Your task to perform on an android device: Go to Yahoo.com Image 0: 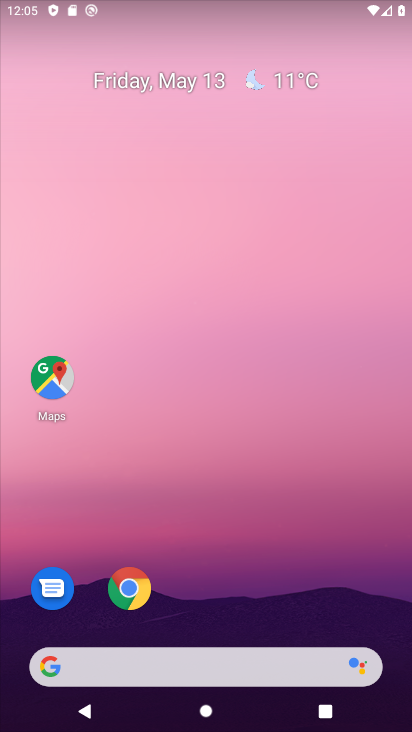
Step 0: click (114, 586)
Your task to perform on an android device: Go to Yahoo.com Image 1: 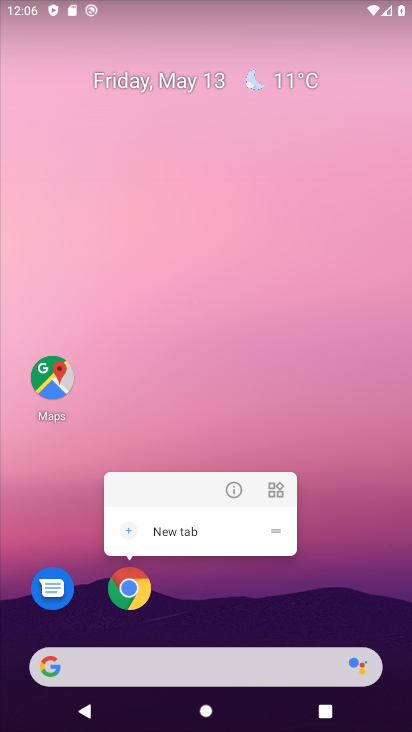
Step 1: click (134, 597)
Your task to perform on an android device: Go to Yahoo.com Image 2: 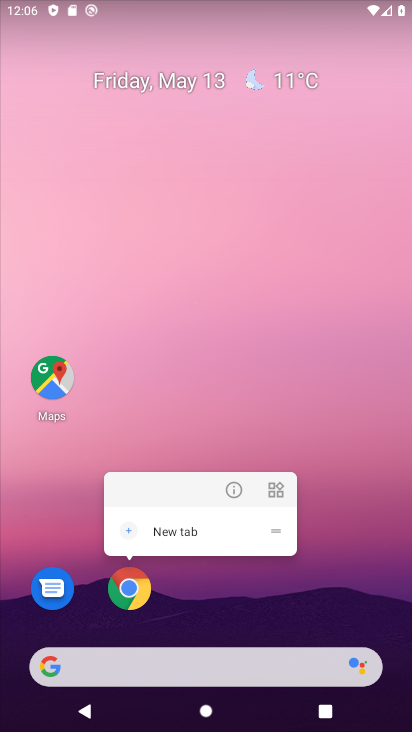
Step 2: click (121, 594)
Your task to perform on an android device: Go to Yahoo.com Image 3: 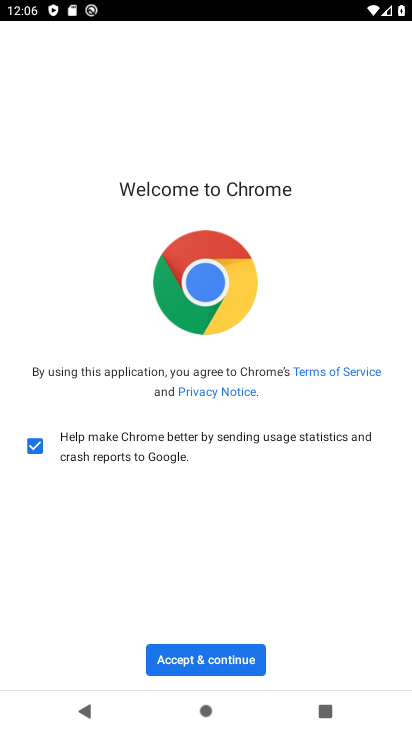
Step 3: click (267, 668)
Your task to perform on an android device: Go to Yahoo.com Image 4: 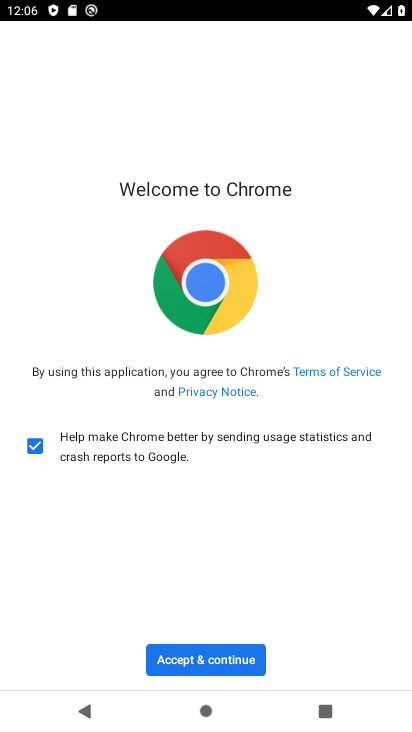
Step 4: click (238, 660)
Your task to perform on an android device: Go to Yahoo.com Image 5: 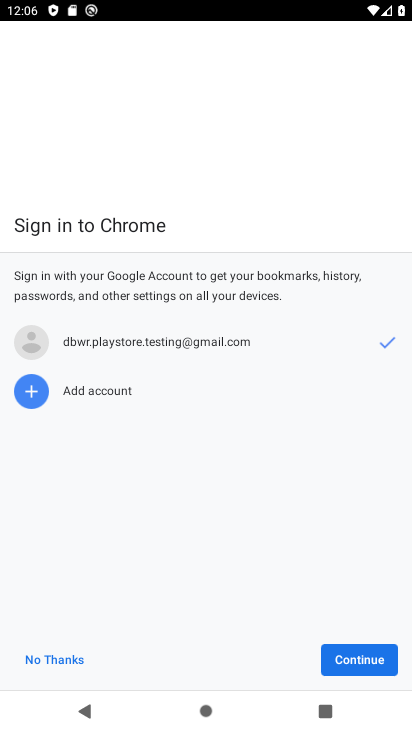
Step 5: click (370, 675)
Your task to perform on an android device: Go to Yahoo.com Image 6: 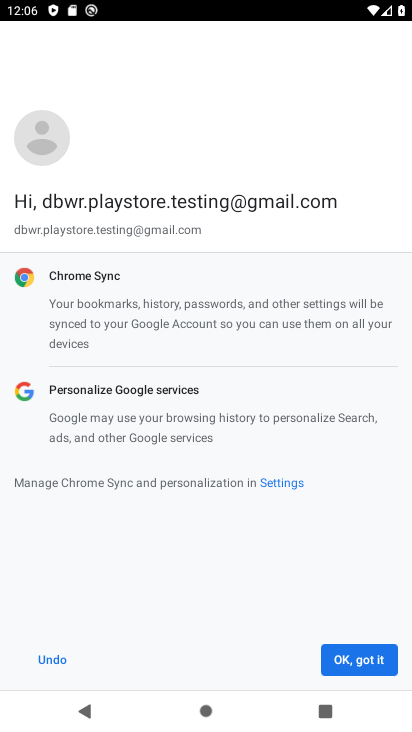
Step 6: click (368, 664)
Your task to perform on an android device: Go to Yahoo.com Image 7: 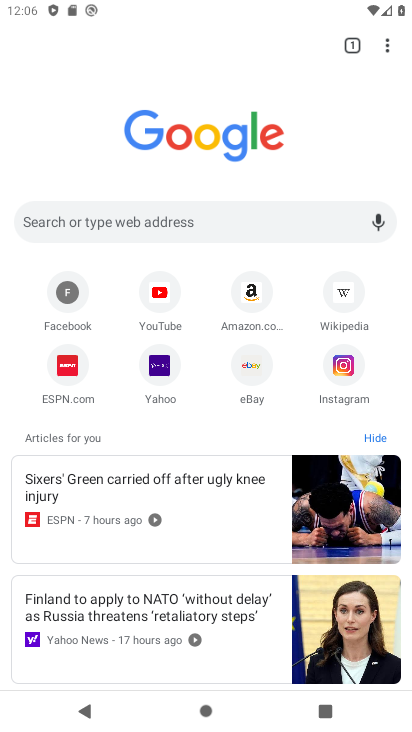
Step 7: click (167, 376)
Your task to perform on an android device: Go to Yahoo.com Image 8: 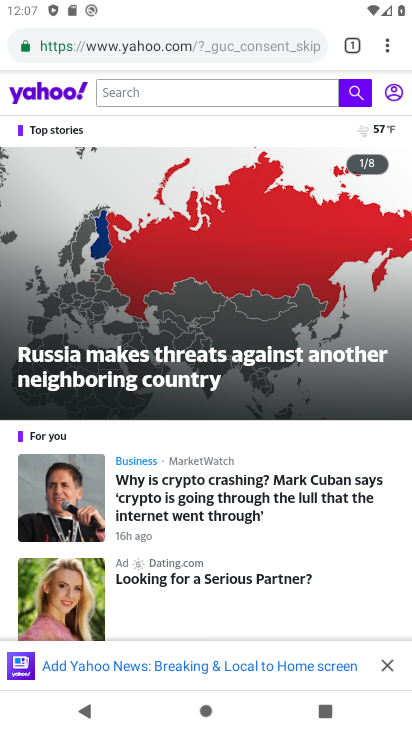
Step 8: task complete